Your task to perform on an android device: empty trash in the gmail app Image 0: 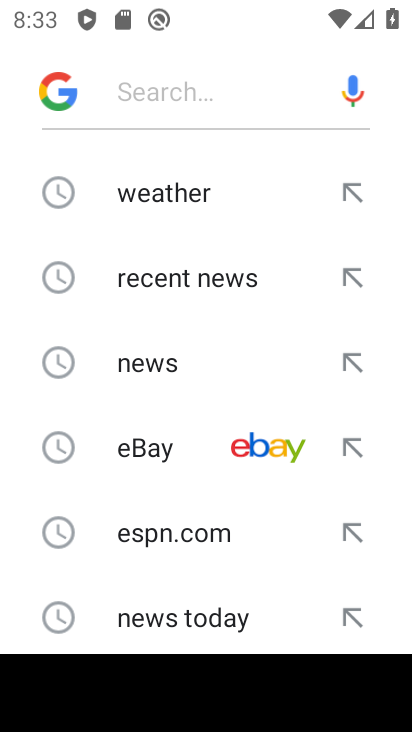
Step 0: press back button
Your task to perform on an android device: empty trash in the gmail app Image 1: 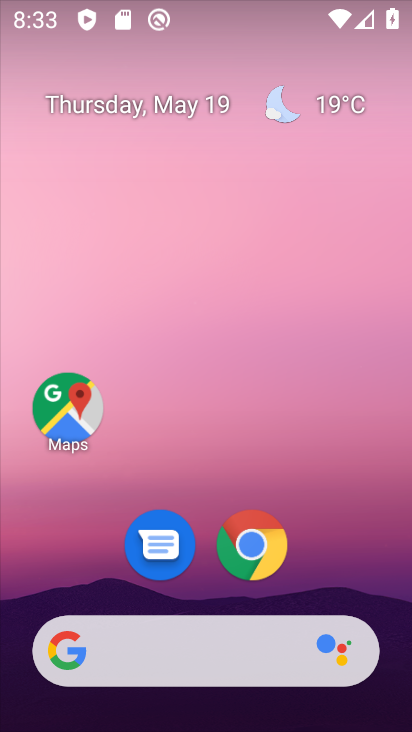
Step 1: drag from (325, 495) to (335, 160)
Your task to perform on an android device: empty trash in the gmail app Image 2: 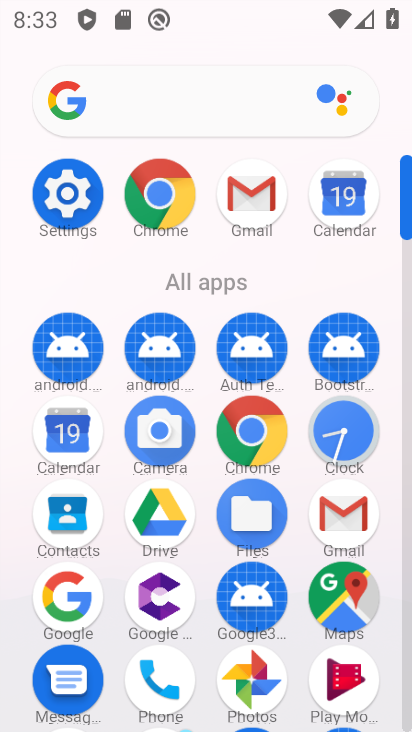
Step 2: click (266, 200)
Your task to perform on an android device: empty trash in the gmail app Image 3: 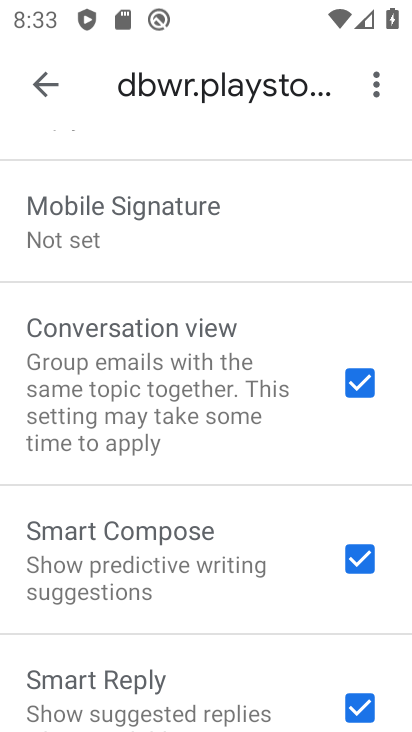
Step 3: drag from (133, 604) to (158, 243)
Your task to perform on an android device: empty trash in the gmail app Image 4: 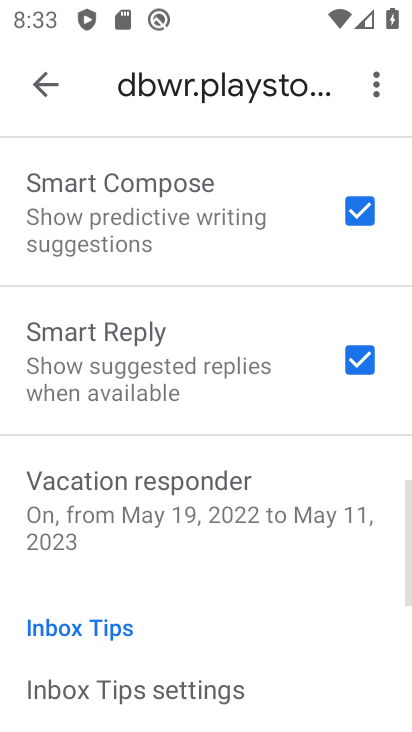
Step 4: click (30, 87)
Your task to perform on an android device: empty trash in the gmail app Image 5: 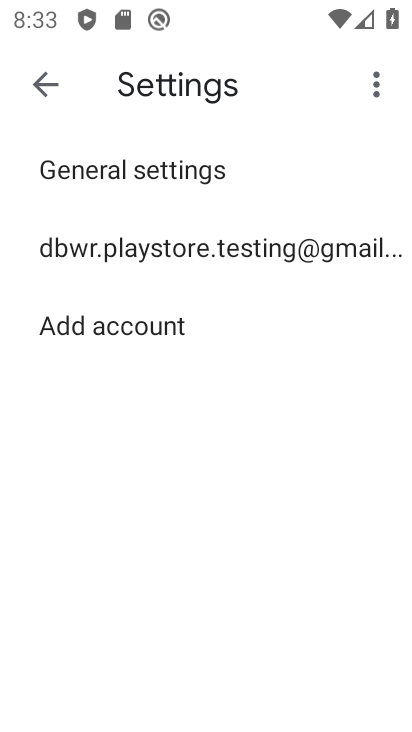
Step 5: click (30, 87)
Your task to perform on an android device: empty trash in the gmail app Image 6: 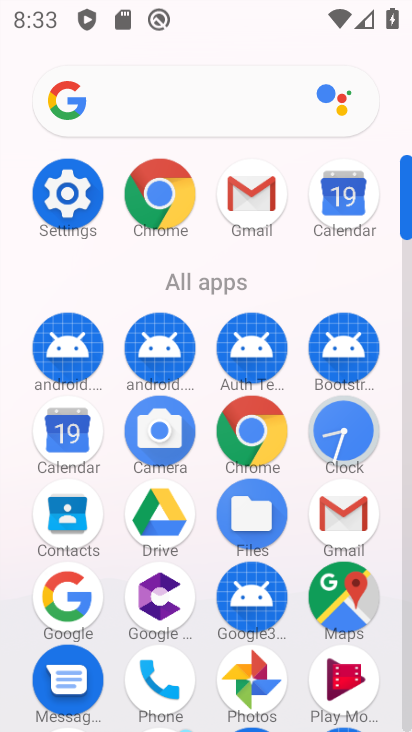
Step 6: click (238, 221)
Your task to perform on an android device: empty trash in the gmail app Image 7: 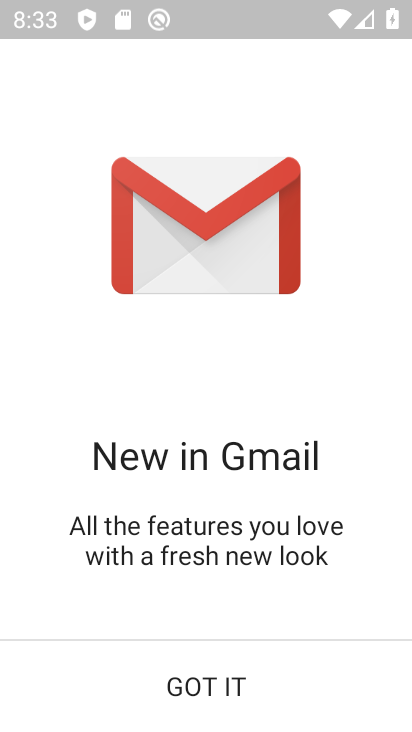
Step 7: click (210, 713)
Your task to perform on an android device: empty trash in the gmail app Image 8: 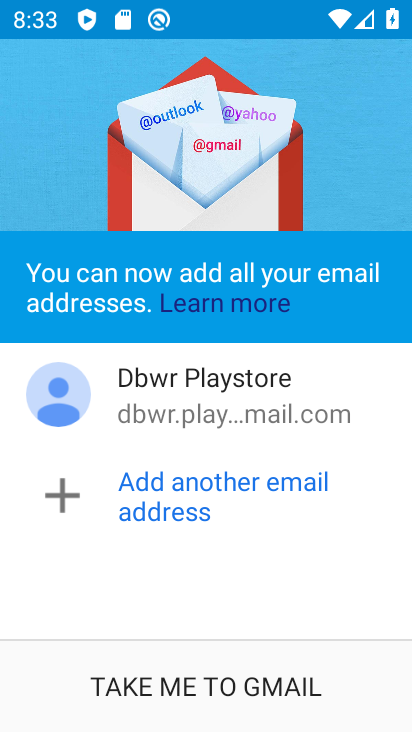
Step 8: click (210, 690)
Your task to perform on an android device: empty trash in the gmail app Image 9: 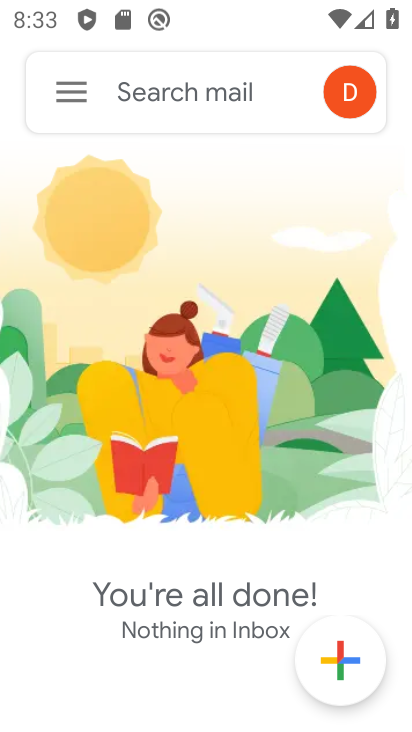
Step 9: click (53, 111)
Your task to perform on an android device: empty trash in the gmail app Image 10: 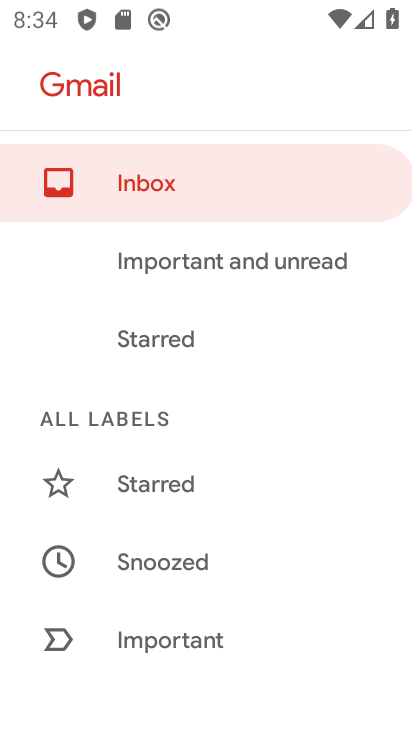
Step 10: drag from (122, 554) to (176, 276)
Your task to perform on an android device: empty trash in the gmail app Image 11: 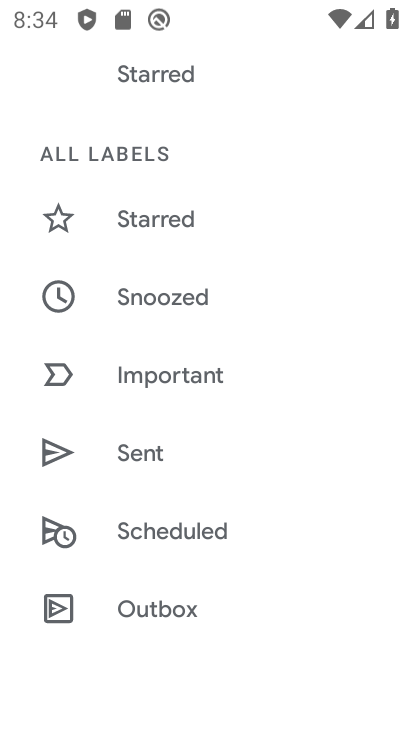
Step 11: drag from (192, 630) to (207, 273)
Your task to perform on an android device: empty trash in the gmail app Image 12: 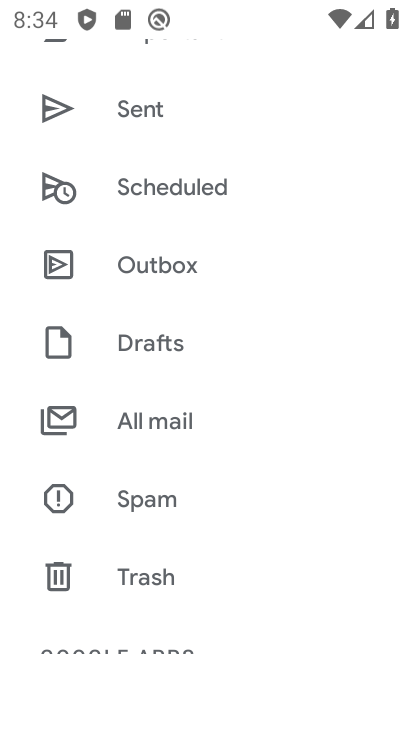
Step 12: click (188, 578)
Your task to perform on an android device: empty trash in the gmail app Image 13: 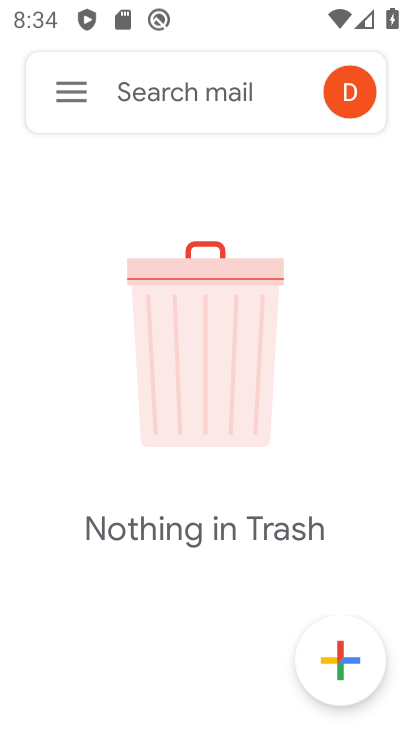
Step 13: task complete